Your task to perform on an android device: toggle priority inbox in the gmail app Image 0: 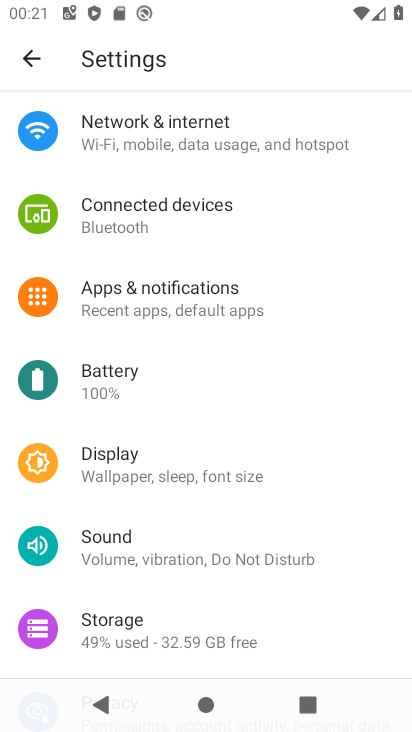
Step 0: press home button
Your task to perform on an android device: toggle priority inbox in the gmail app Image 1: 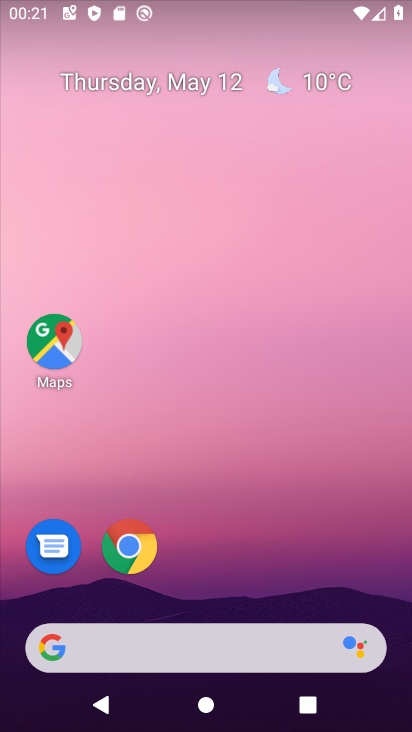
Step 1: drag from (172, 599) to (219, 290)
Your task to perform on an android device: toggle priority inbox in the gmail app Image 2: 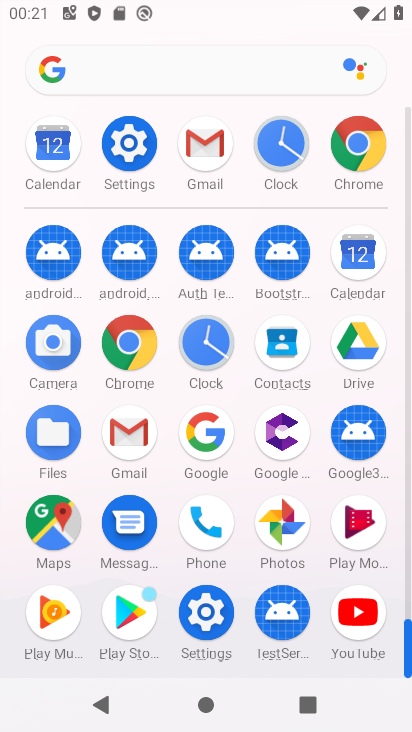
Step 2: click (129, 444)
Your task to perform on an android device: toggle priority inbox in the gmail app Image 3: 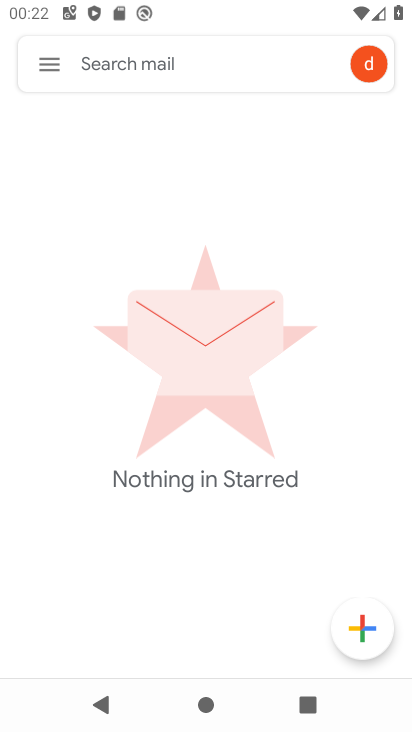
Step 3: click (43, 65)
Your task to perform on an android device: toggle priority inbox in the gmail app Image 4: 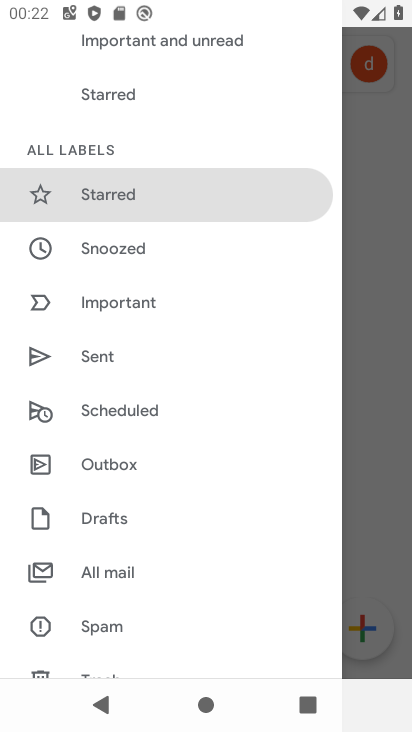
Step 4: drag from (190, 610) to (228, 369)
Your task to perform on an android device: toggle priority inbox in the gmail app Image 5: 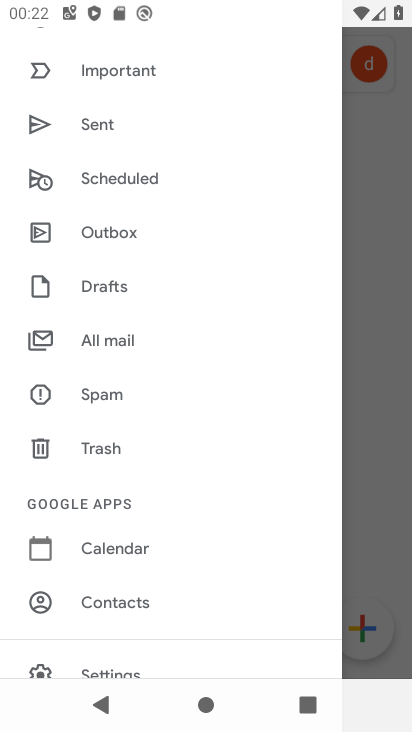
Step 5: drag from (90, 635) to (146, 368)
Your task to perform on an android device: toggle priority inbox in the gmail app Image 6: 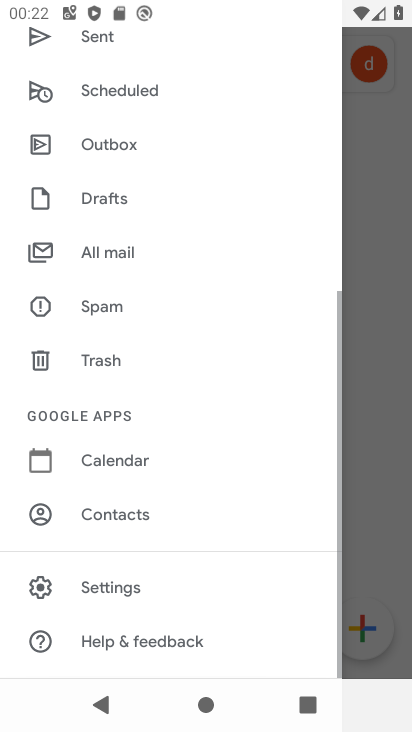
Step 6: click (95, 581)
Your task to perform on an android device: toggle priority inbox in the gmail app Image 7: 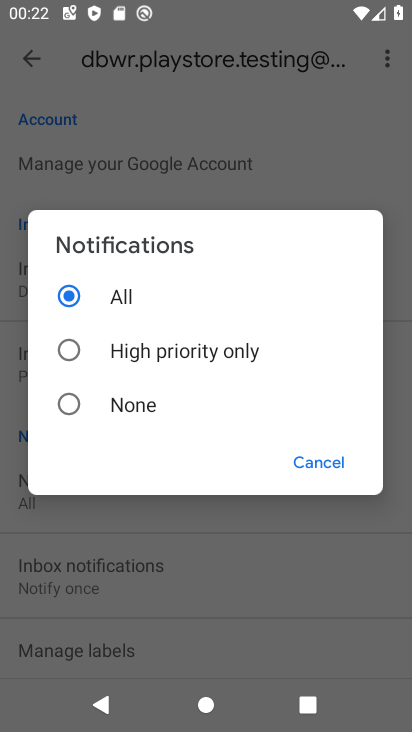
Step 7: click (315, 469)
Your task to perform on an android device: toggle priority inbox in the gmail app Image 8: 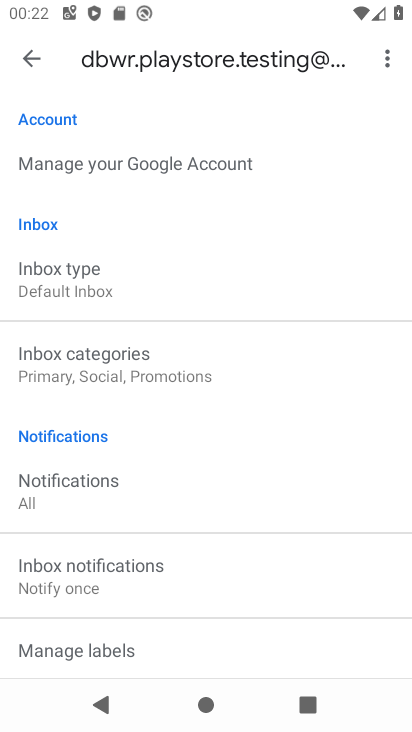
Step 8: click (103, 281)
Your task to perform on an android device: toggle priority inbox in the gmail app Image 9: 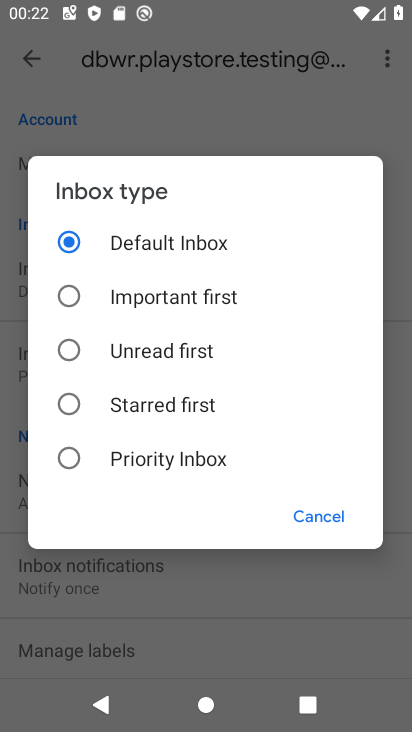
Step 9: click (73, 474)
Your task to perform on an android device: toggle priority inbox in the gmail app Image 10: 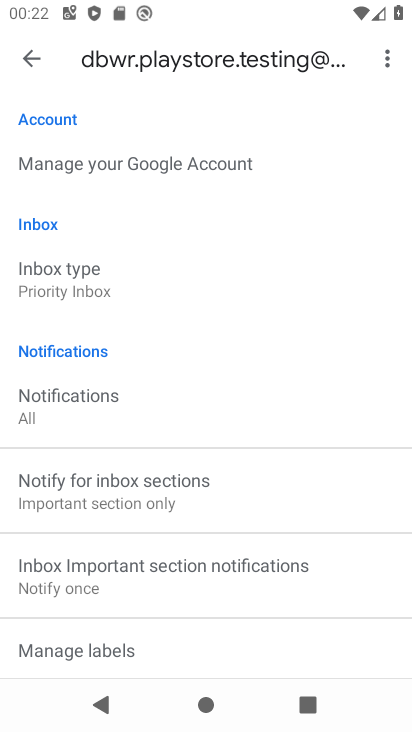
Step 10: task complete